Your task to perform on an android device: Go to notification settings Image 0: 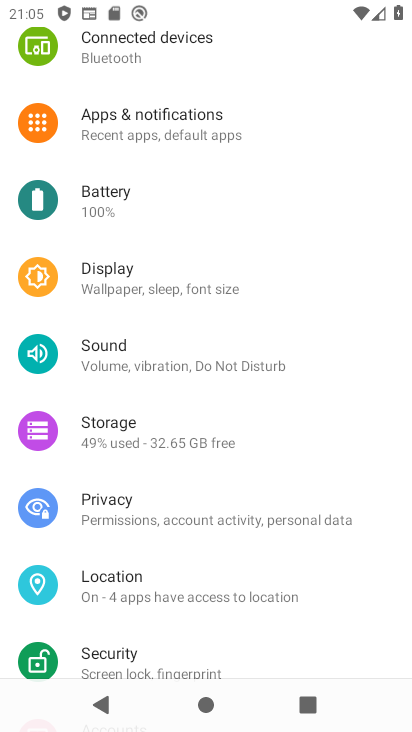
Step 0: click (185, 127)
Your task to perform on an android device: Go to notification settings Image 1: 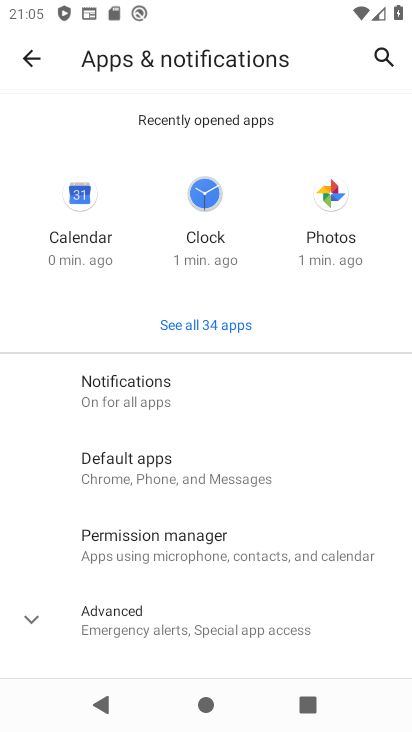
Step 1: click (138, 389)
Your task to perform on an android device: Go to notification settings Image 2: 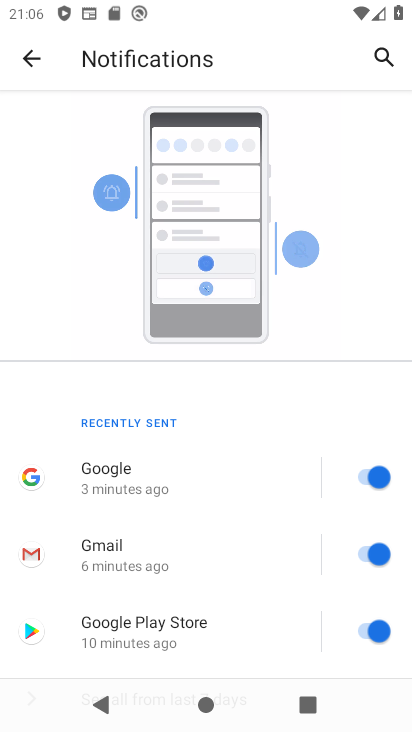
Step 2: task complete